Your task to perform on an android device: turn on location history Image 0: 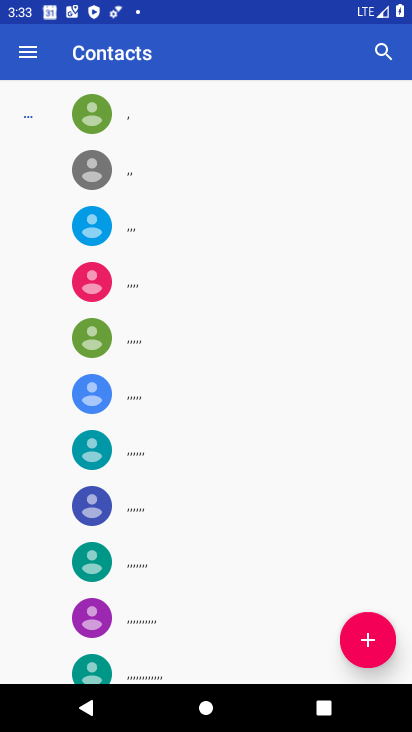
Step 0: press back button
Your task to perform on an android device: turn on location history Image 1: 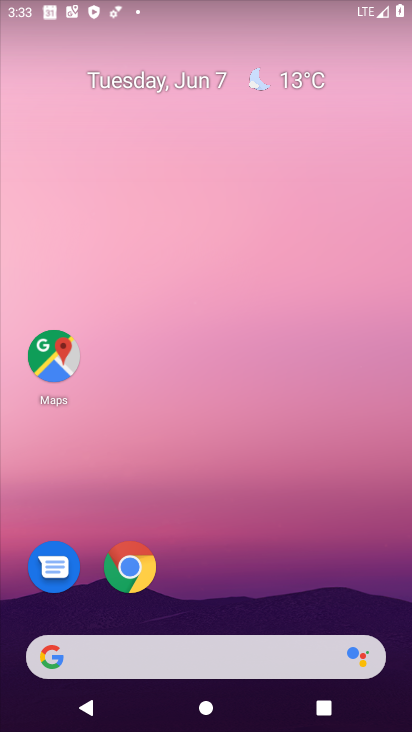
Step 1: drag from (194, 578) to (194, 86)
Your task to perform on an android device: turn on location history Image 2: 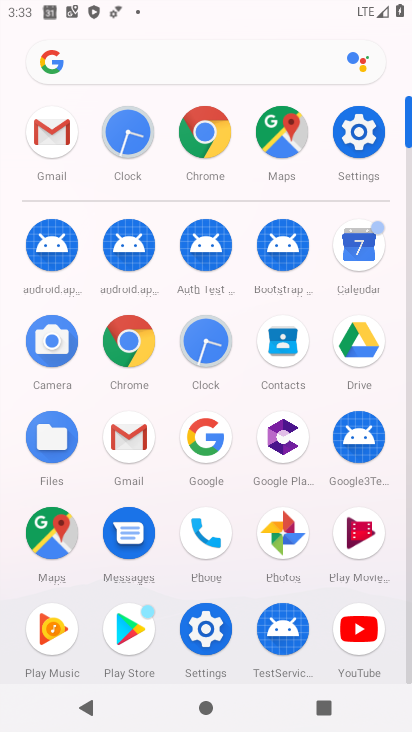
Step 2: click (363, 140)
Your task to perform on an android device: turn on location history Image 3: 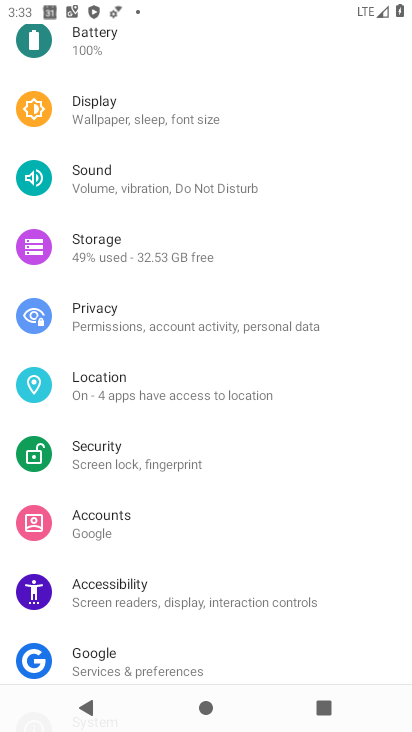
Step 3: click (142, 385)
Your task to perform on an android device: turn on location history Image 4: 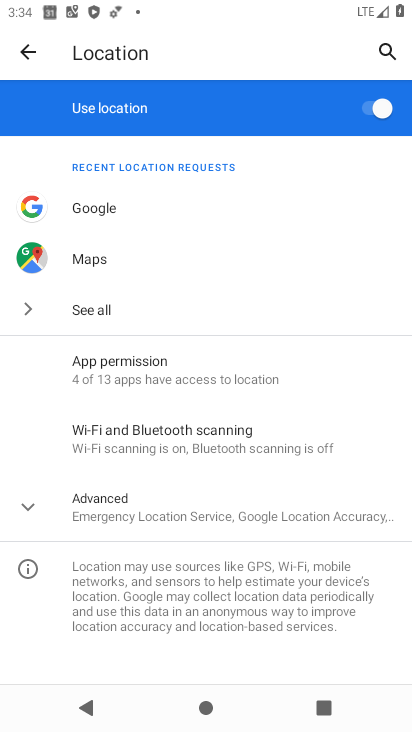
Step 4: click (143, 504)
Your task to perform on an android device: turn on location history Image 5: 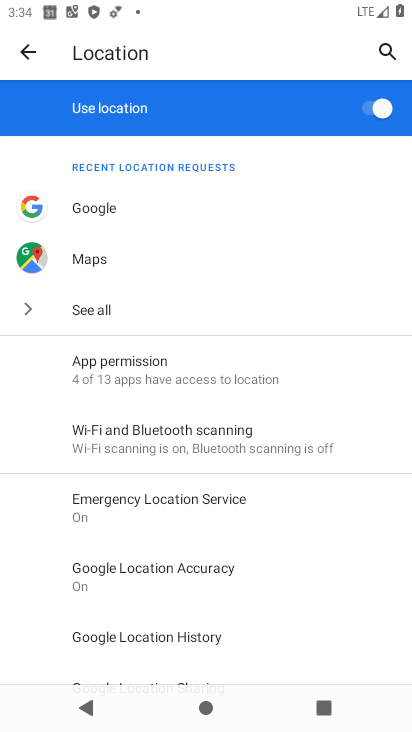
Step 5: click (181, 640)
Your task to perform on an android device: turn on location history Image 6: 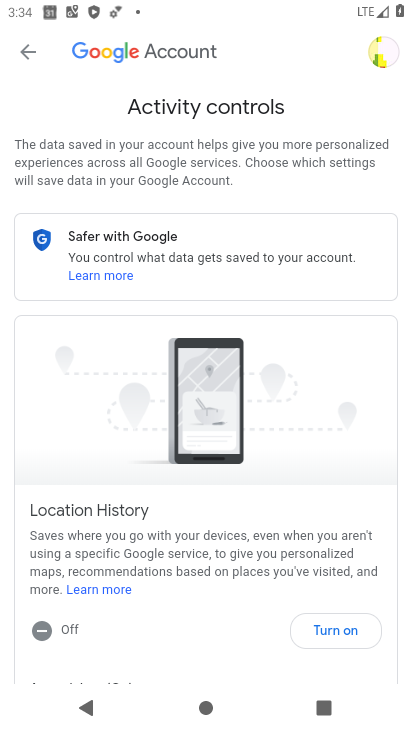
Step 6: click (334, 629)
Your task to perform on an android device: turn on location history Image 7: 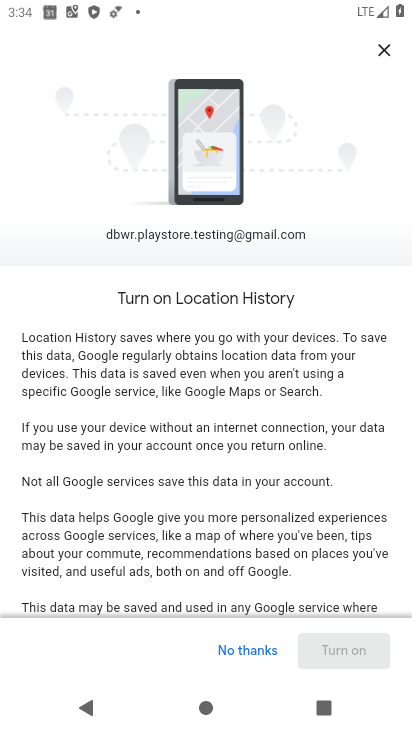
Step 7: drag from (284, 580) to (368, 22)
Your task to perform on an android device: turn on location history Image 8: 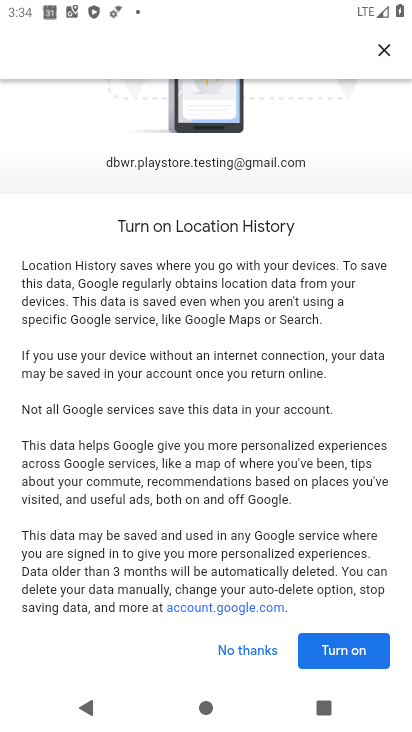
Step 8: click (348, 647)
Your task to perform on an android device: turn on location history Image 9: 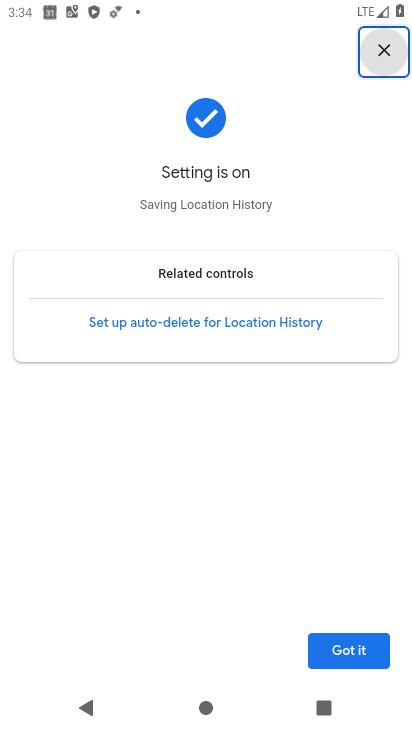
Step 9: click (350, 649)
Your task to perform on an android device: turn on location history Image 10: 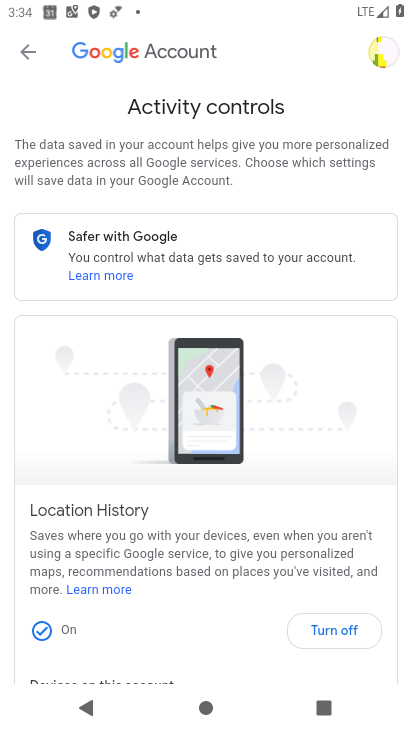
Step 10: task complete